Your task to perform on an android device: Open Google Image 0: 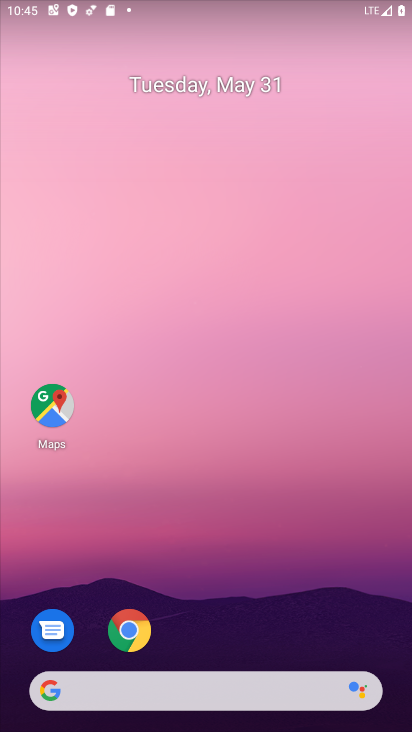
Step 0: press home button
Your task to perform on an android device: Open Google Image 1: 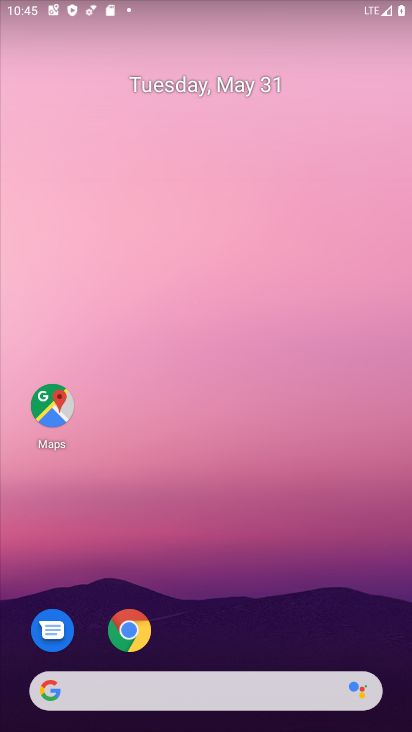
Step 1: drag from (355, 523) to (349, 117)
Your task to perform on an android device: Open Google Image 2: 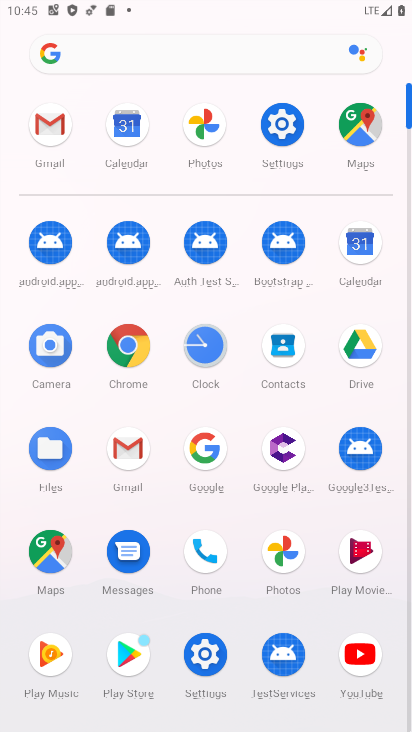
Step 2: click (199, 452)
Your task to perform on an android device: Open Google Image 3: 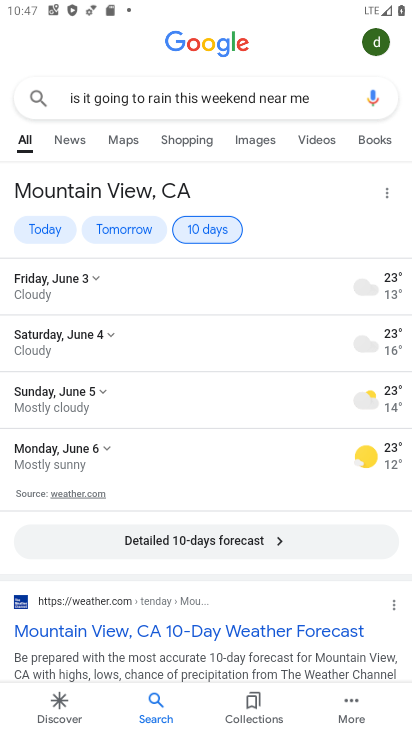
Step 3: click (324, 94)
Your task to perform on an android device: Open Google Image 4: 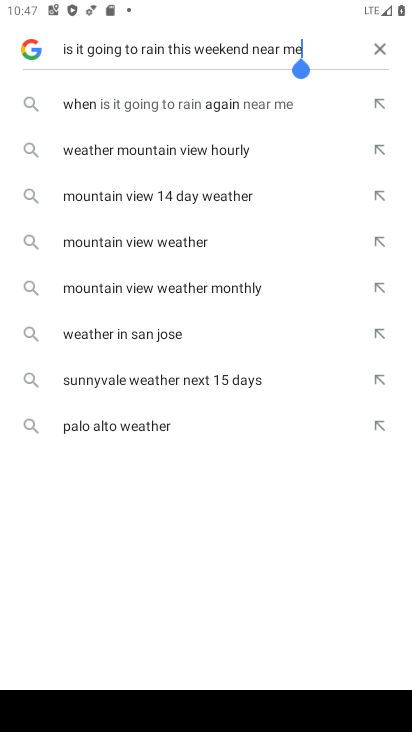
Step 4: click (387, 44)
Your task to perform on an android device: Open Google Image 5: 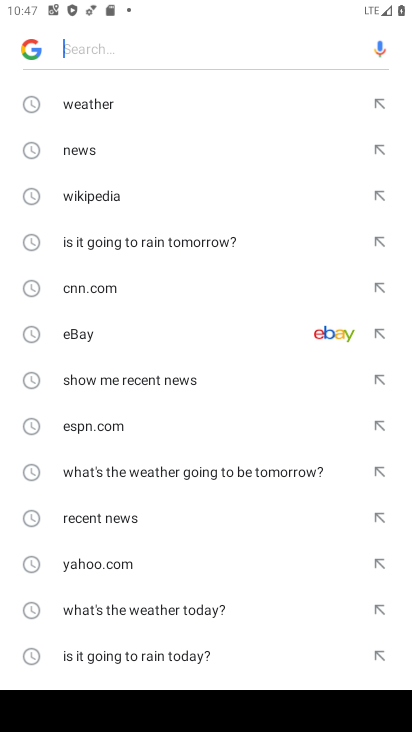
Step 5: task complete